Your task to perform on an android device: change keyboard looks Image 0: 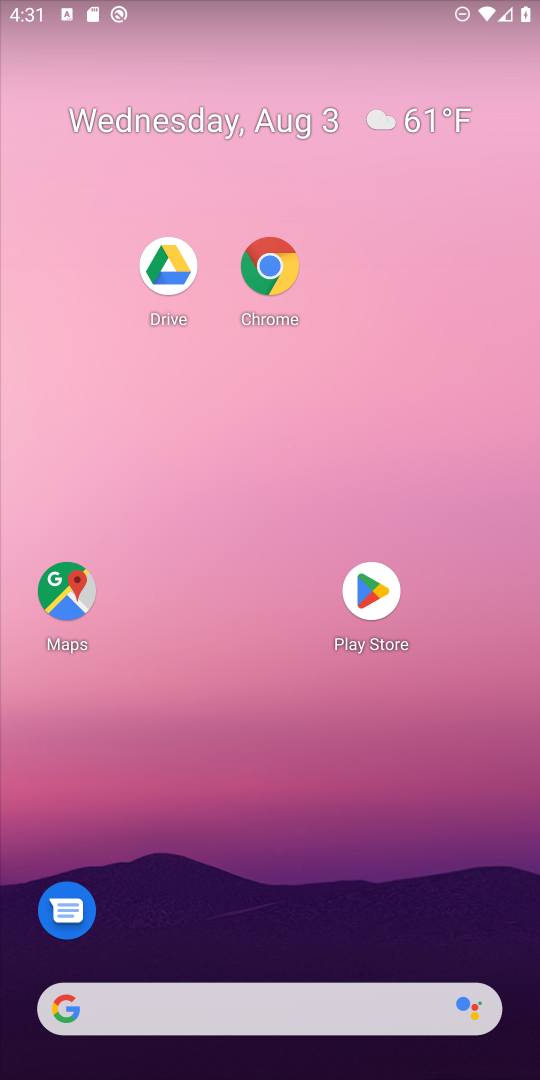
Step 0: drag from (256, 998) to (322, 175)
Your task to perform on an android device: change keyboard looks Image 1: 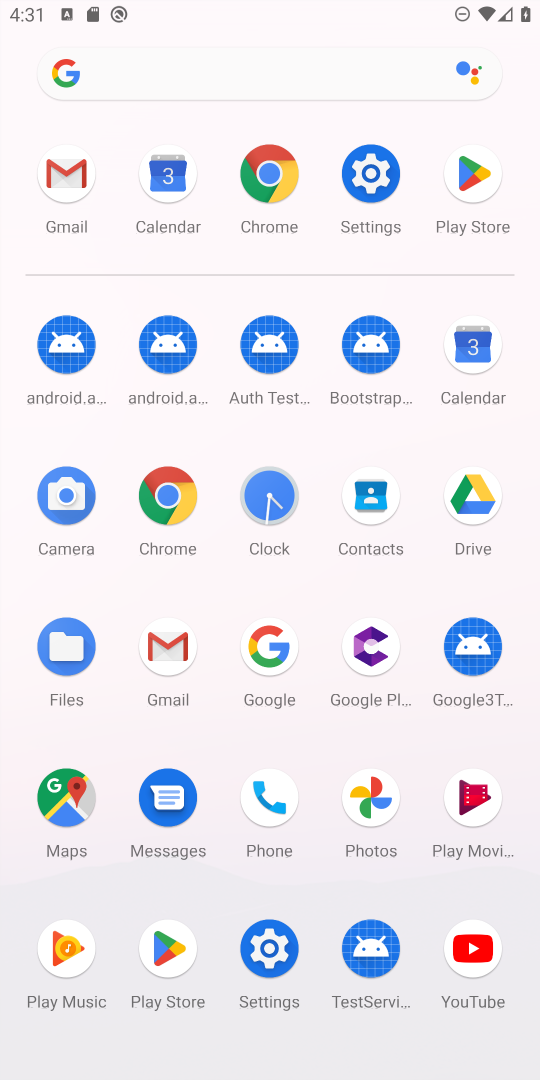
Step 1: click (360, 162)
Your task to perform on an android device: change keyboard looks Image 2: 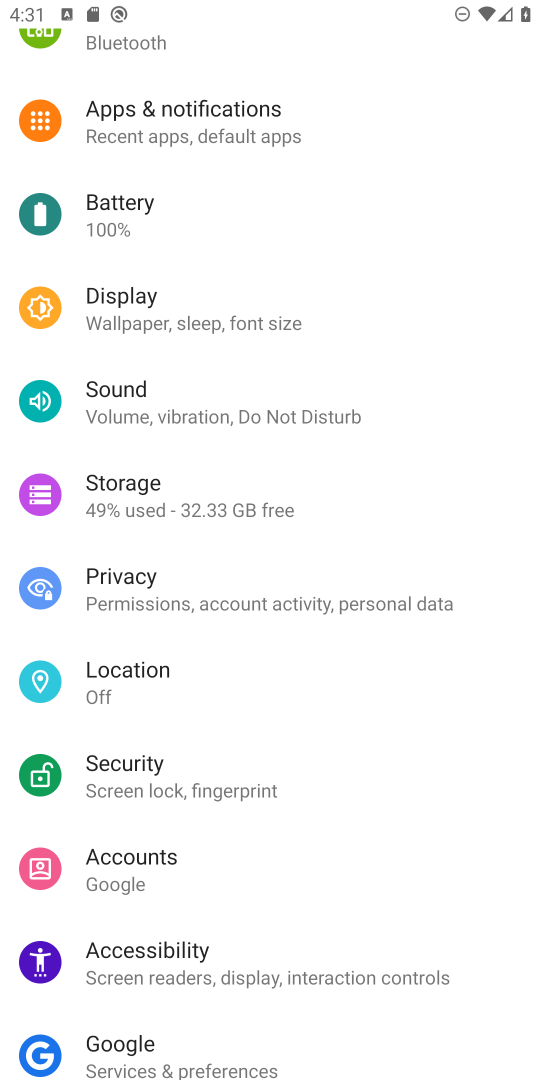
Step 2: drag from (154, 985) to (221, 380)
Your task to perform on an android device: change keyboard looks Image 3: 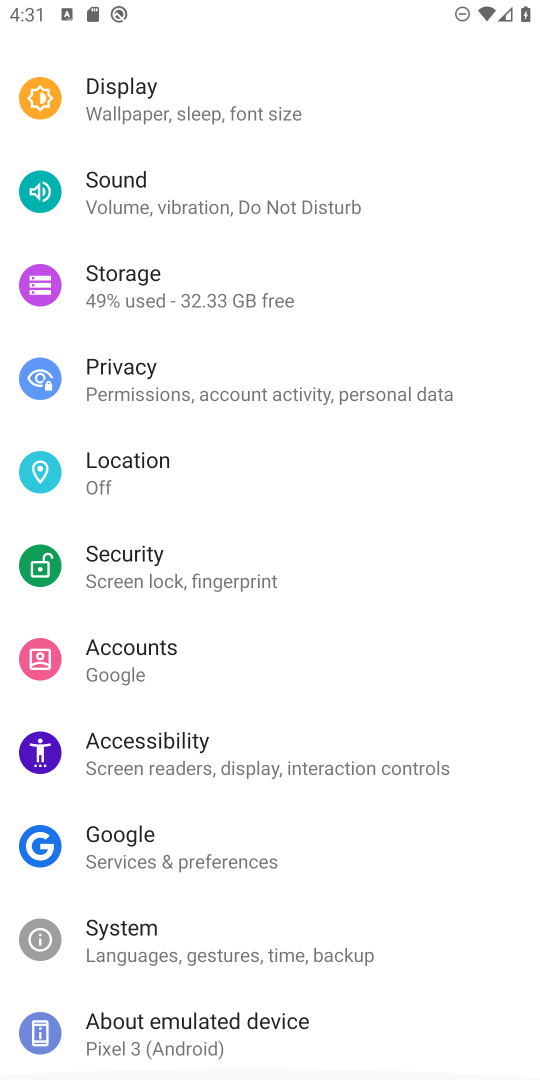
Step 3: click (162, 941)
Your task to perform on an android device: change keyboard looks Image 4: 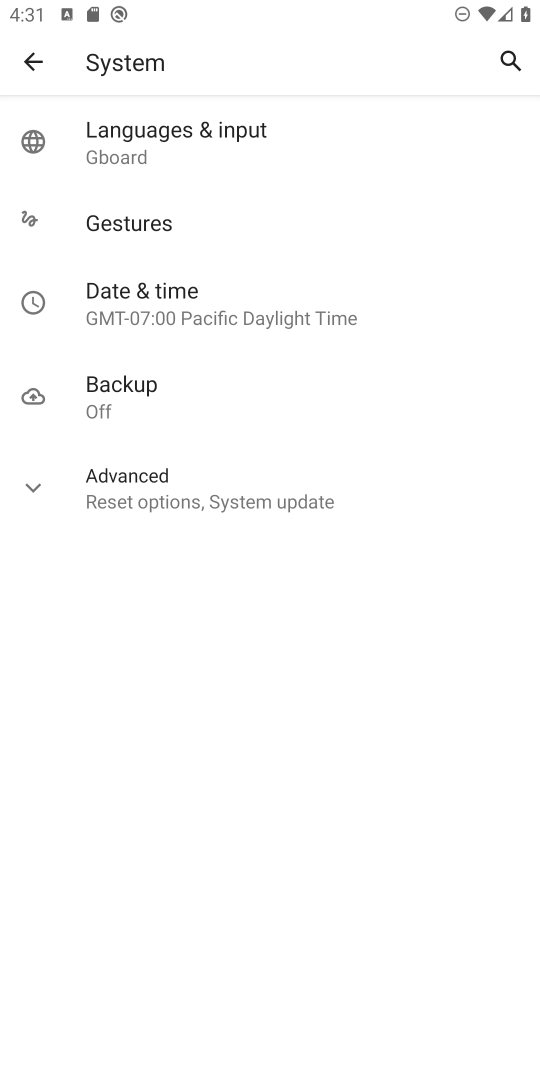
Step 4: click (212, 132)
Your task to perform on an android device: change keyboard looks Image 5: 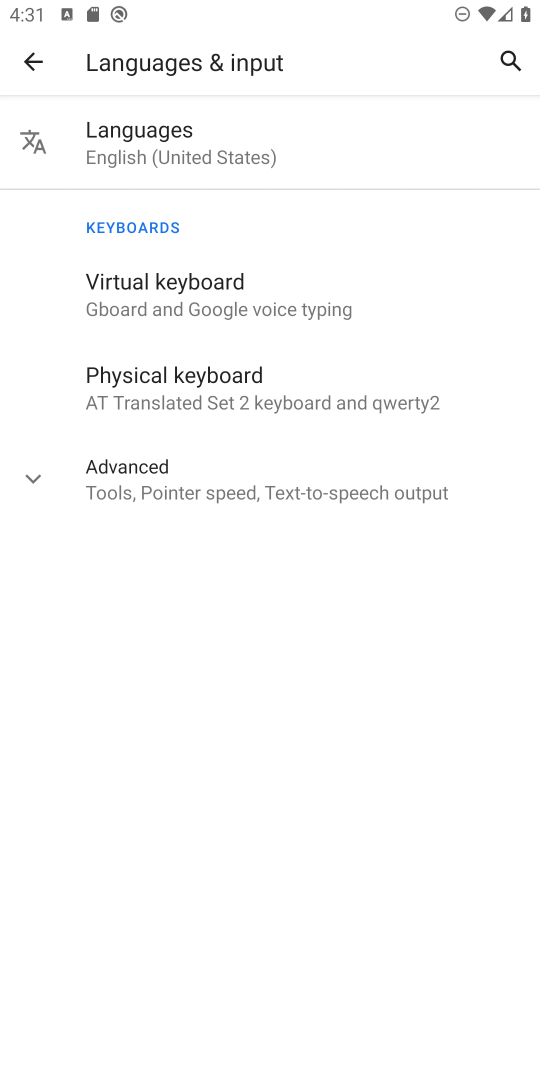
Step 5: click (177, 284)
Your task to perform on an android device: change keyboard looks Image 6: 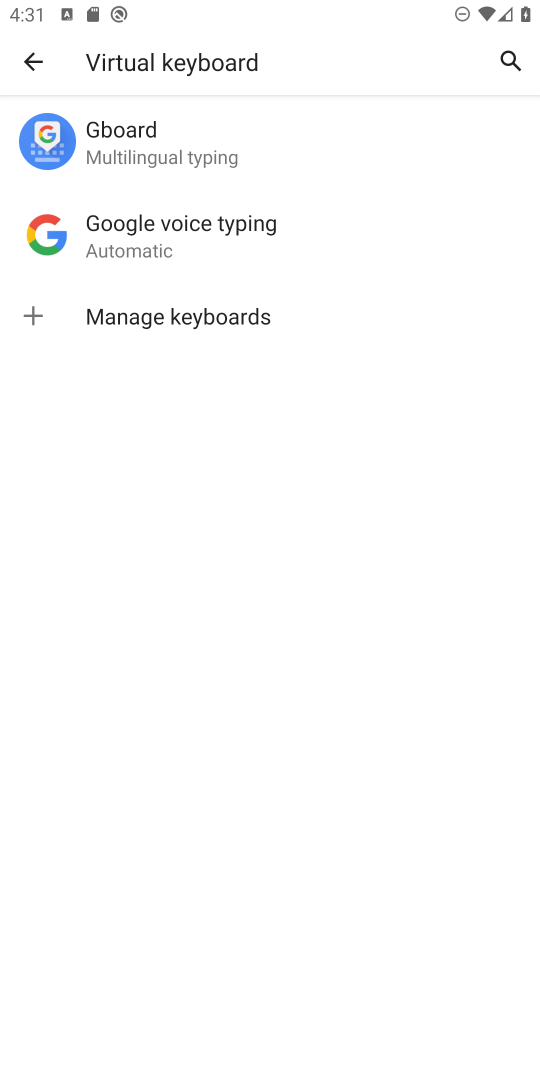
Step 6: click (160, 154)
Your task to perform on an android device: change keyboard looks Image 7: 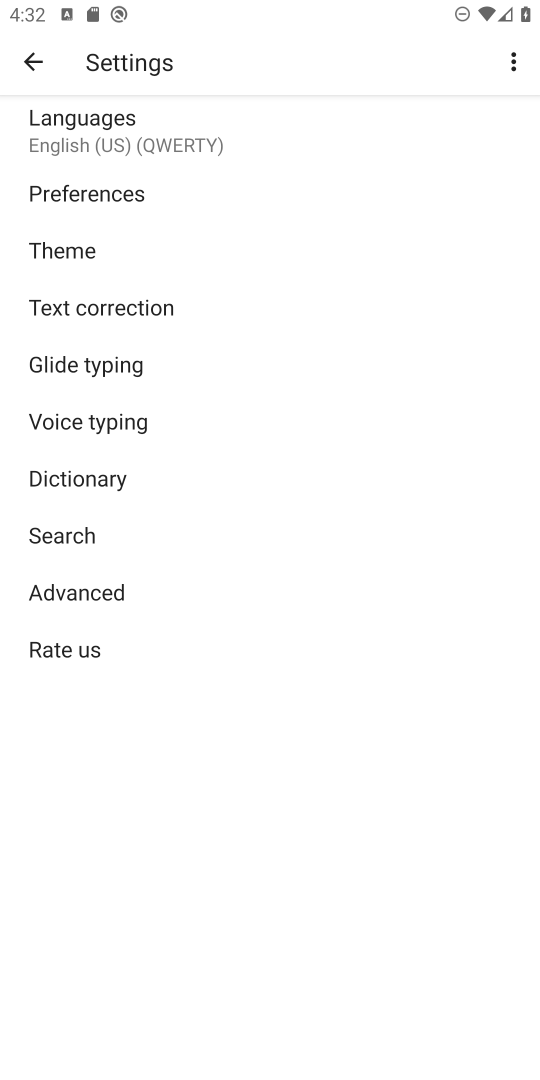
Step 7: click (113, 258)
Your task to perform on an android device: change keyboard looks Image 8: 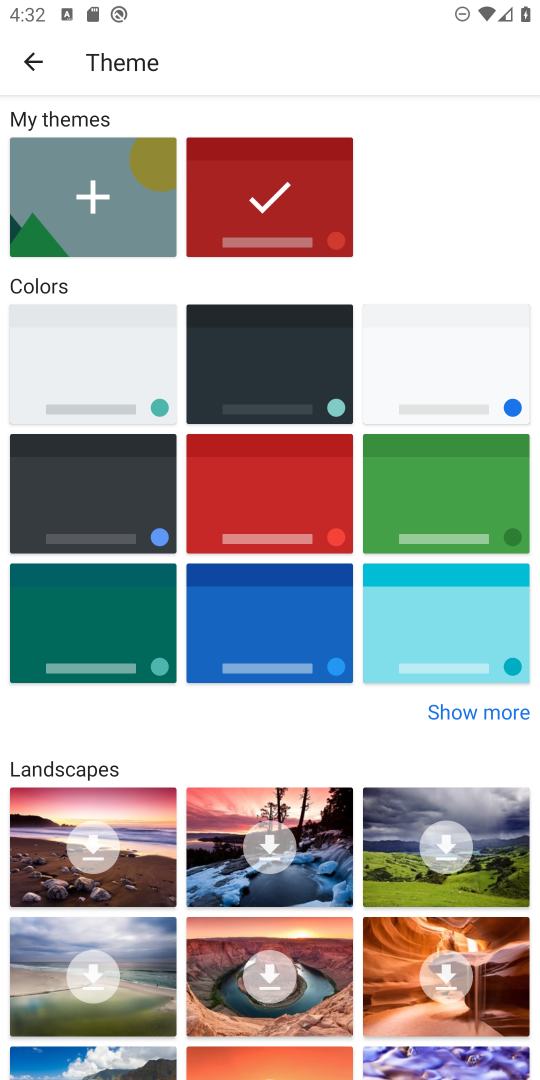
Step 8: click (267, 458)
Your task to perform on an android device: change keyboard looks Image 9: 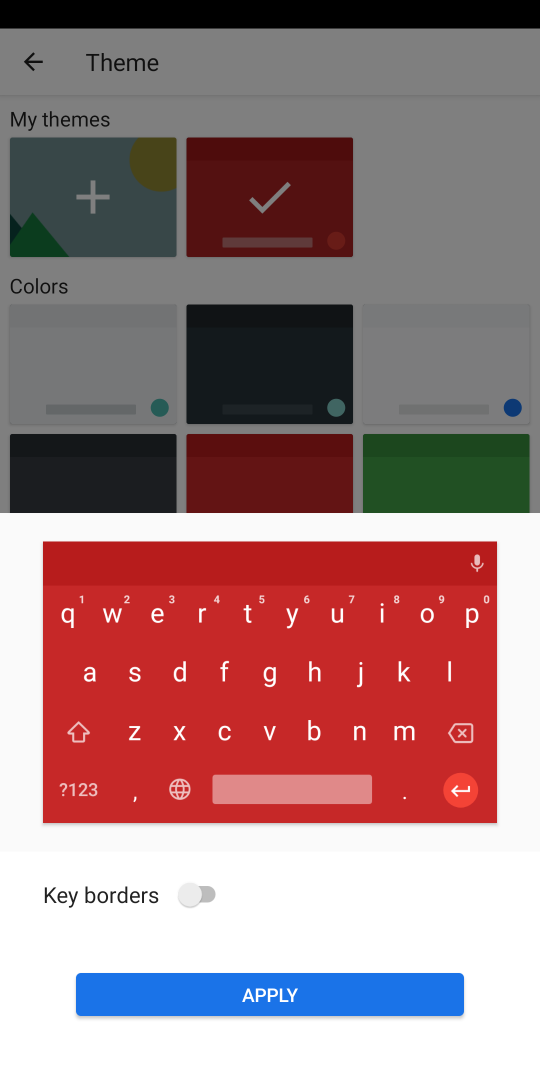
Step 9: click (358, 989)
Your task to perform on an android device: change keyboard looks Image 10: 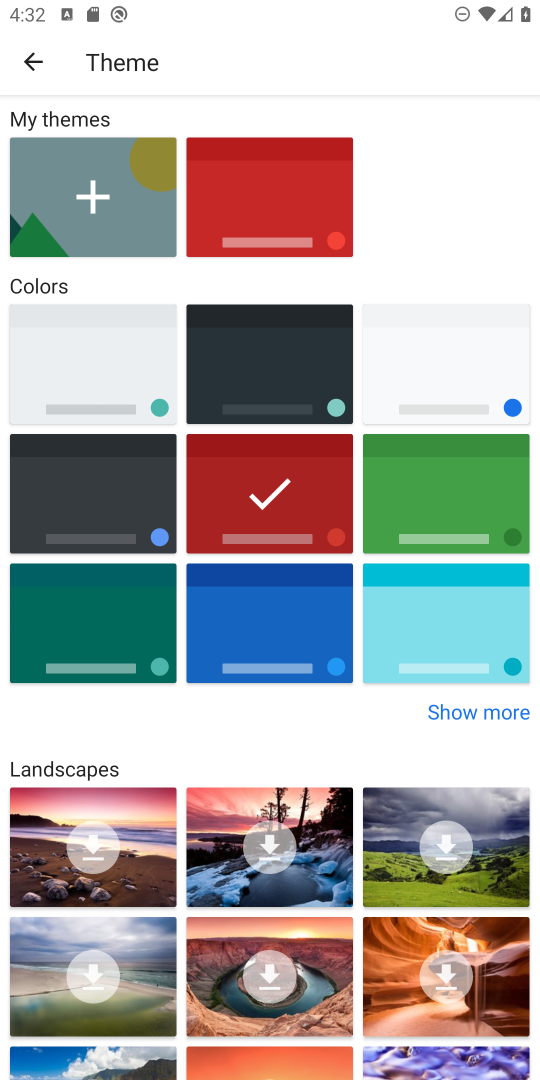
Step 10: task complete